Your task to perform on an android device: toggle airplane mode Image 0: 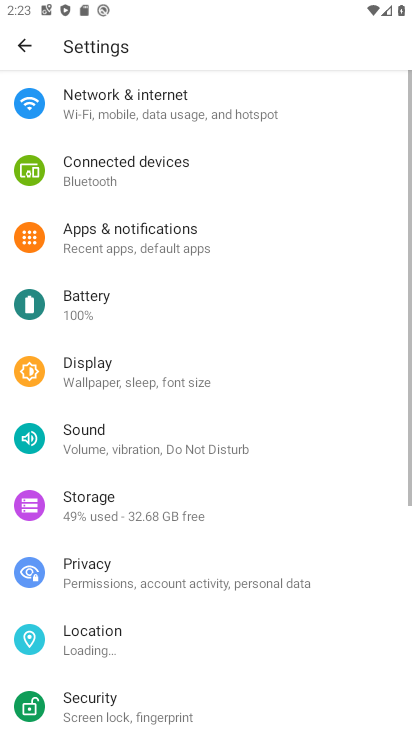
Step 0: press home button
Your task to perform on an android device: toggle airplane mode Image 1: 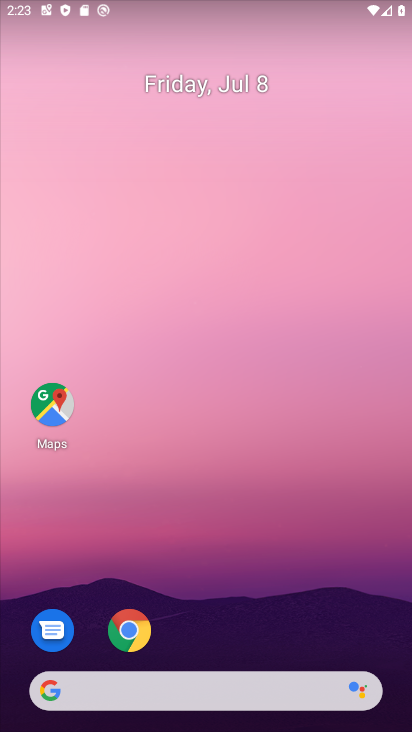
Step 1: drag from (298, 613) to (253, 226)
Your task to perform on an android device: toggle airplane mode Image 2: 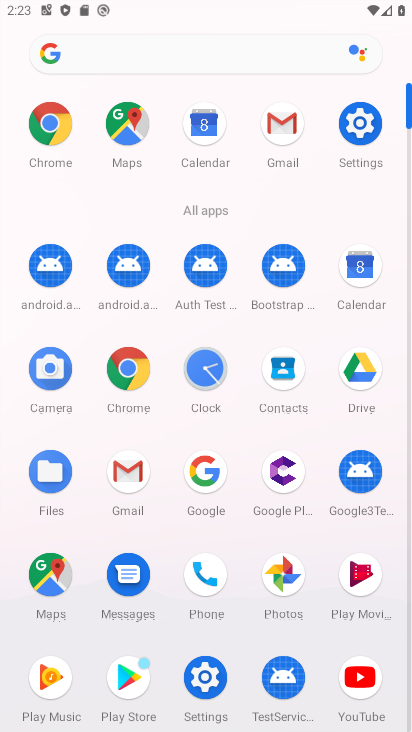
Step 2: click (343, 132)
Your task to perform on an android device: toggle airplane mode Image 3: 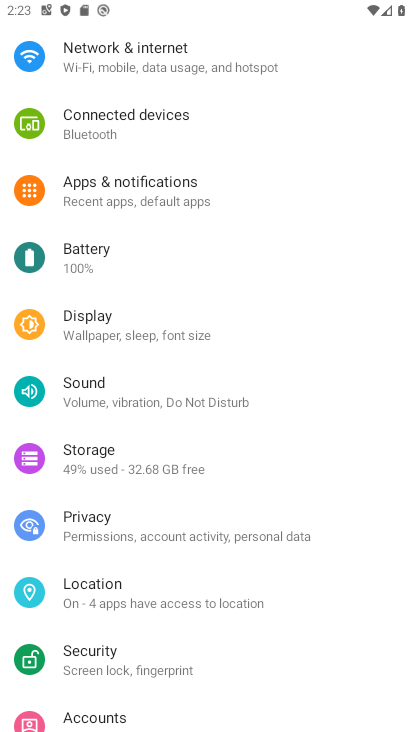
Step 3: click (177, 87)
Your task to perform on an android device: toggle airplane mode Image 4: 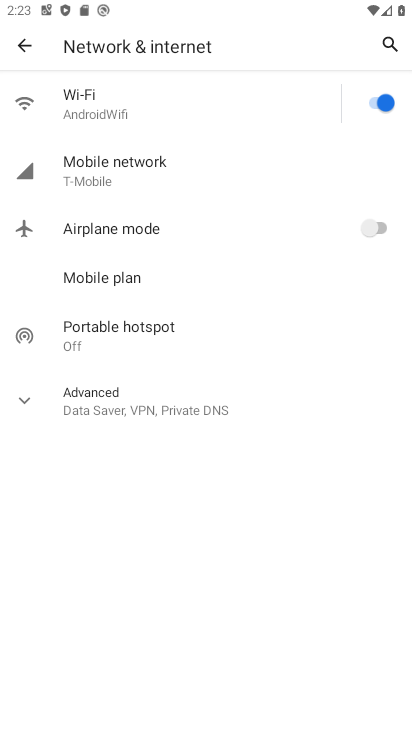
Step 4: click (324, 256)
Your task to perform on an android device: toggle airplane mode Image 5: 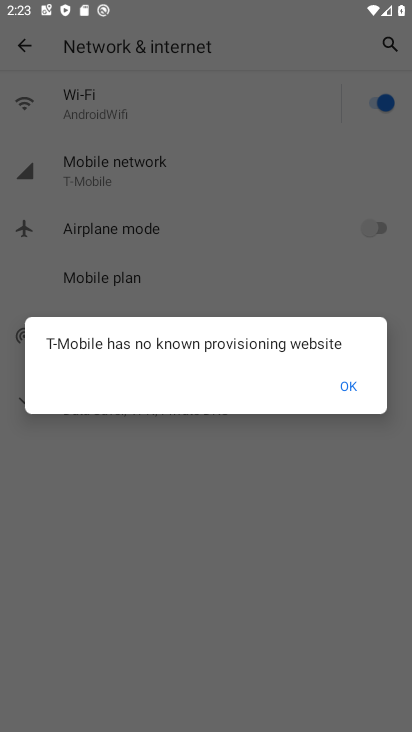
Step 5: click (337, 397)
Your task to perform on an android device: toggle airplane mode Image 6: 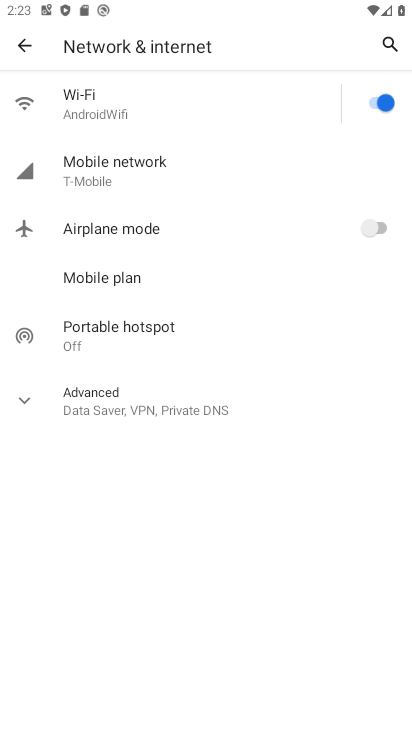
Step 6: click (347, 224)
Your task to perform on an android device: toggle airplane mode Image 7: 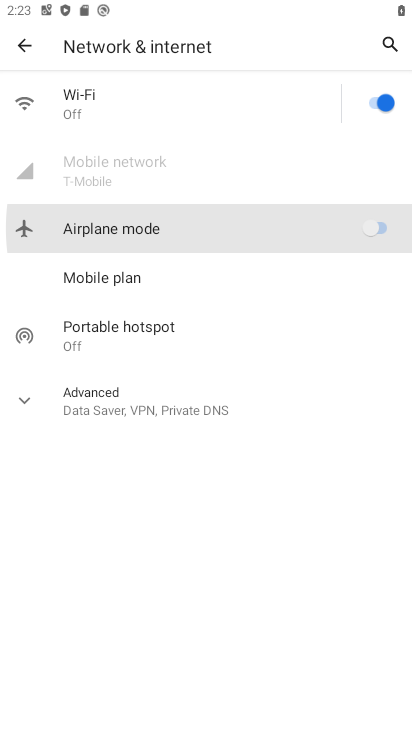
Step 7: click (347, 224)
Your task to perform on an android device: toggle airplane mode Image 8: 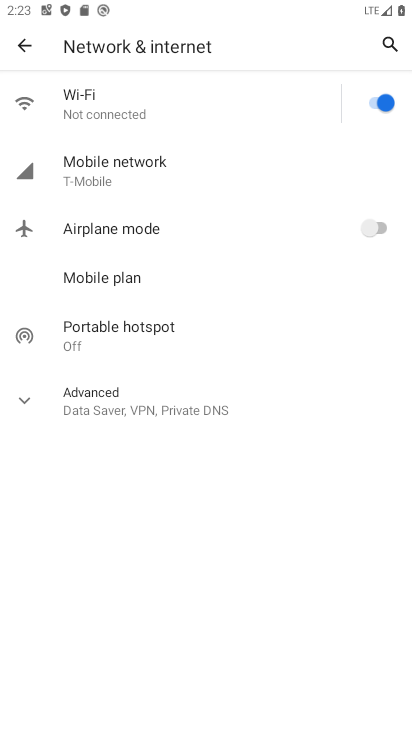
Step 8: task complete